Your task to perform on an android device: uninstall "Gmail" Image 0: 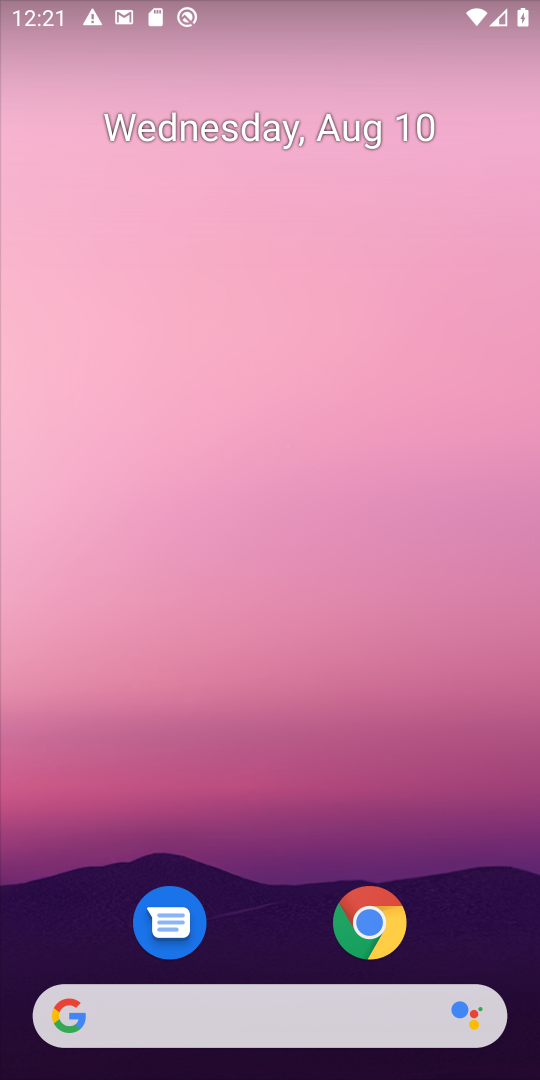
Step 0: drag from (253, 666) to (258, 224)
Your task to perform on an android device: uninstall "Gmail" Image 1: 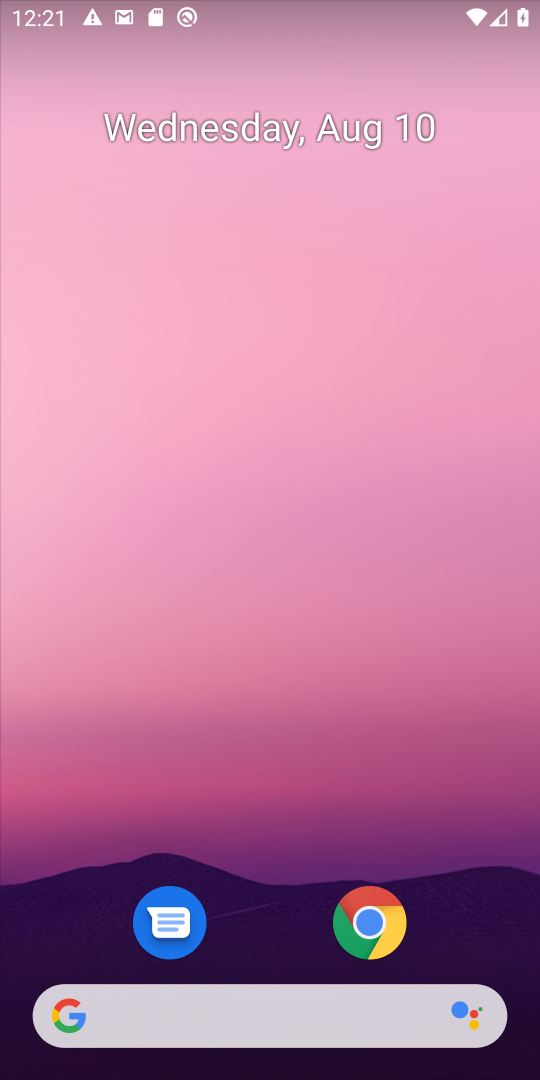
Step 1: drag from (241, 903) to (390, 39)
Your task to perform on an android device: uninstall "Gmail" Image 2: 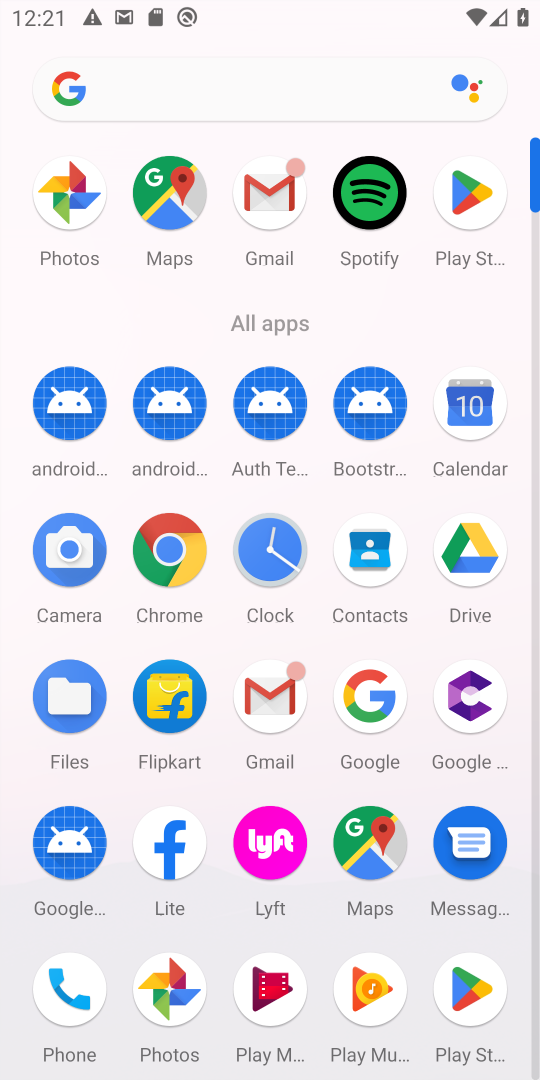
Step 2: click (479, 212)
Your task to perform on an android device: uninstall "Gmail" Image 3: 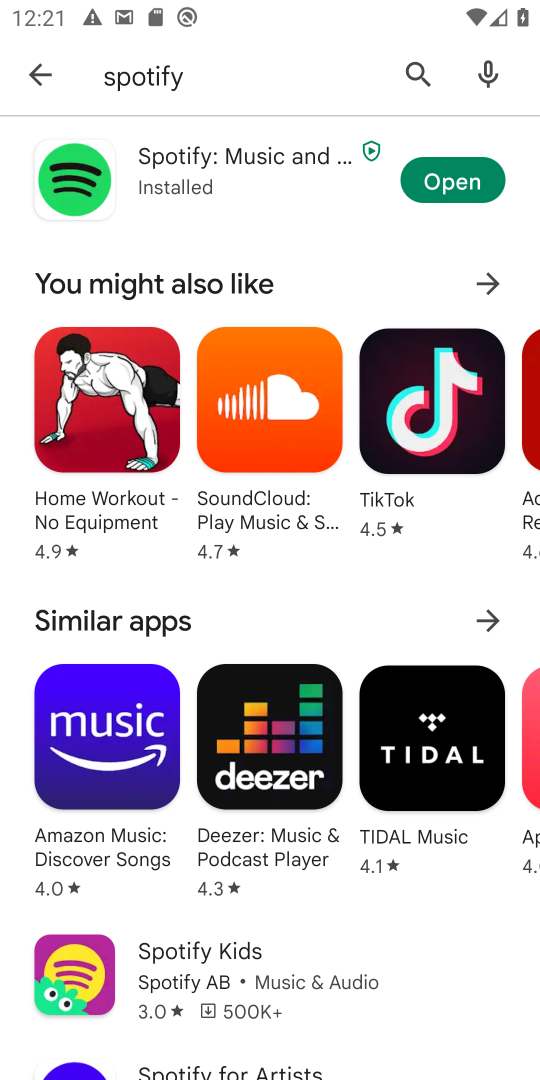
Step 3: click (43, 71)
Your task to perform on an android device: uninstall "Gmail" Image 4: 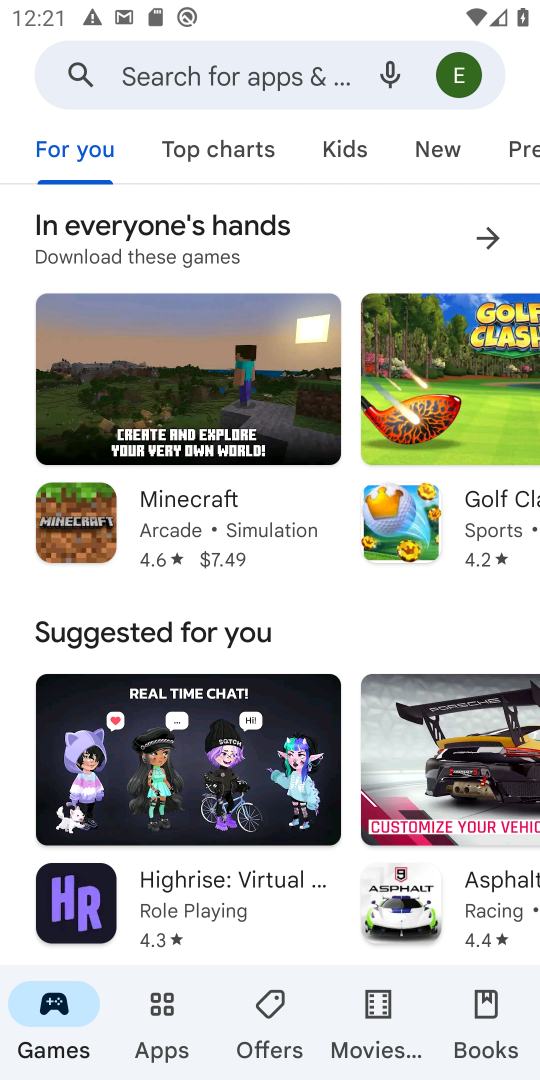
Step 4: click (192, 85)
Your task to perform on an android device: uninstall "Gmail" Image 5: 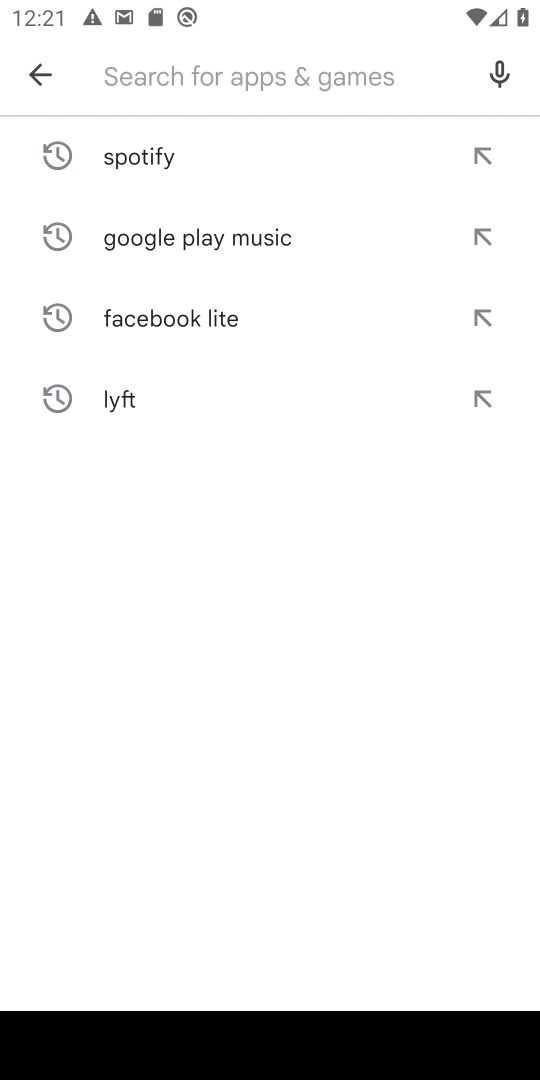
Step 5: type "Gmail"
Your task to perform on an android device: uninstall "Gmail" Image 6: 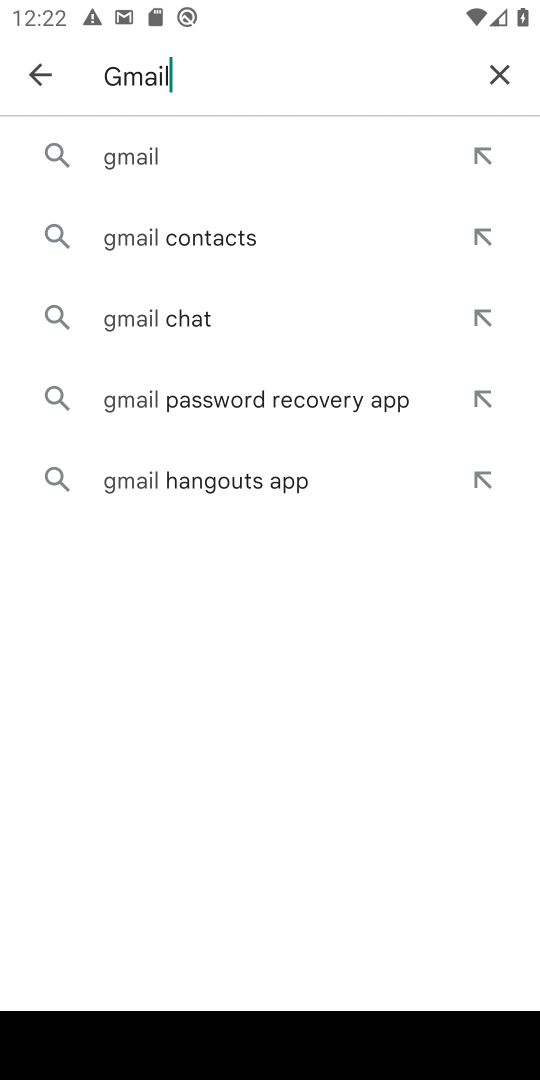
Step 6: click (132, 161)
Your task to perform on an android device: uninstall "Gmail" Image 7: 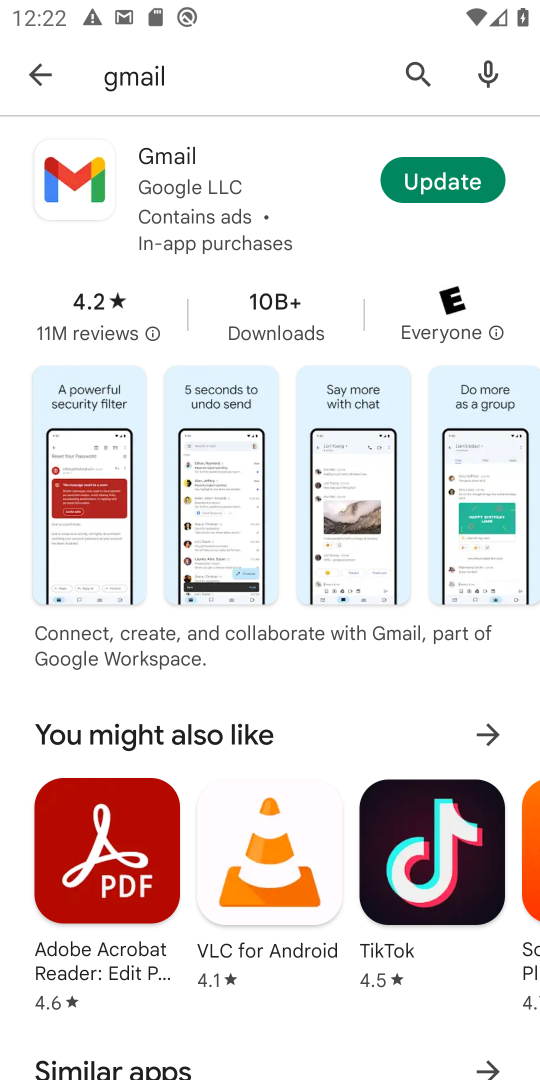
Step 7: click (419, 189)
Your task to perform on an android device: uninstall "Gmail" Image 8: 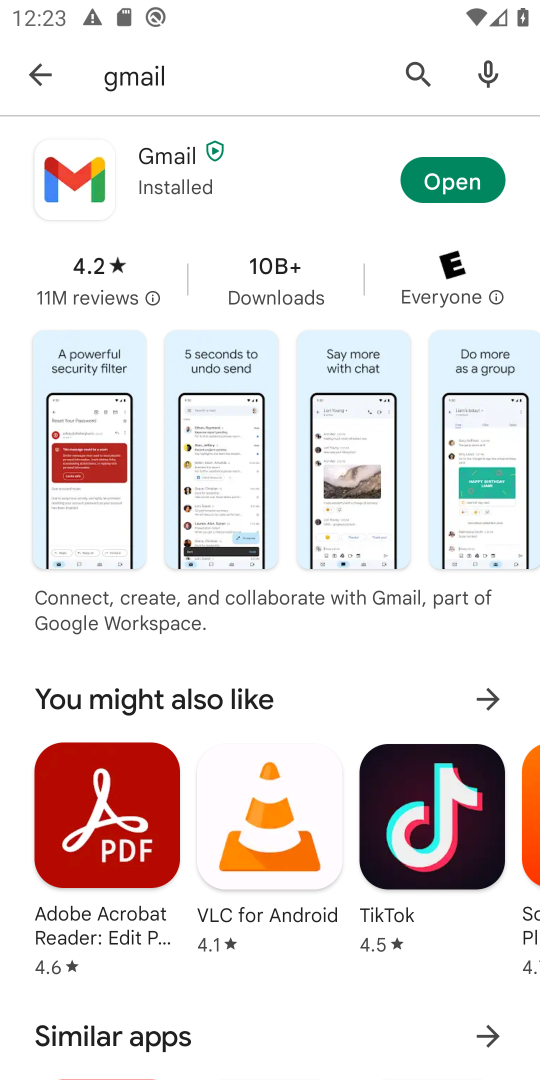
Step 8: click (449, 175)
Your task to perform on an android device: uninstall "Gmail" Image 9: 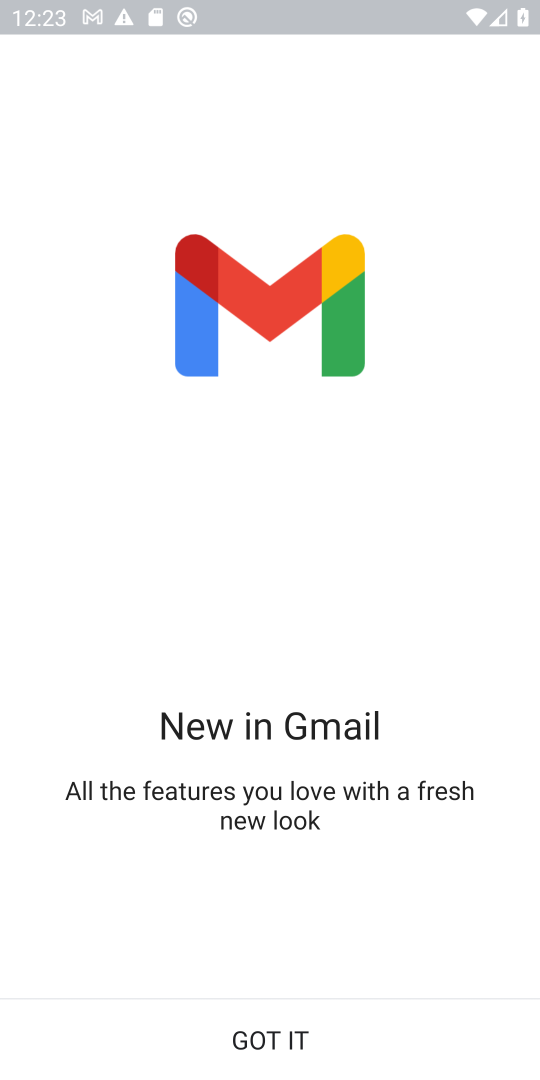
Step 9: press back button
Your task to perform on an android device: uninstall "Gmail" Image 10: 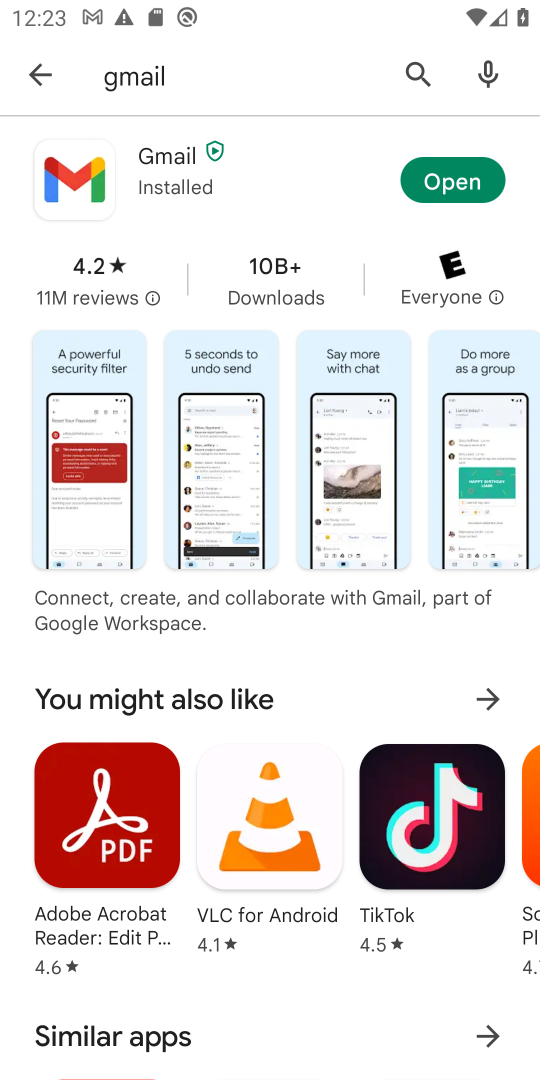
Step 10: click (180, 184)
Your task to perform on an android device: uninstall "Gmail" Image 11: 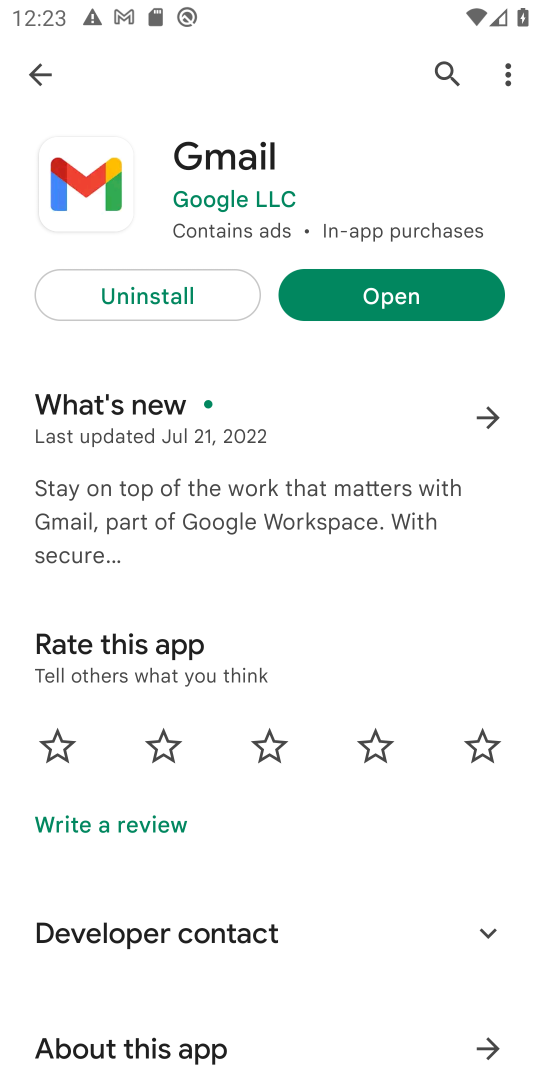
Step 11: click (123, 285)
Your task to perform on an android device: uninstall "Gmail" Image 12: 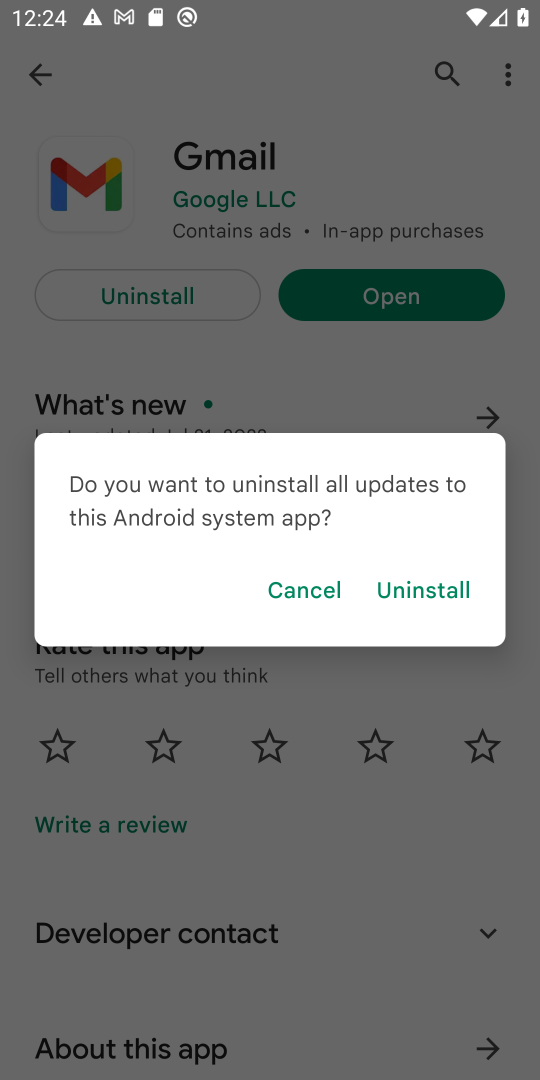
Step 12: click (409, 586)
Your task to perform on an android device: uninstall "Gmail" Image 13: 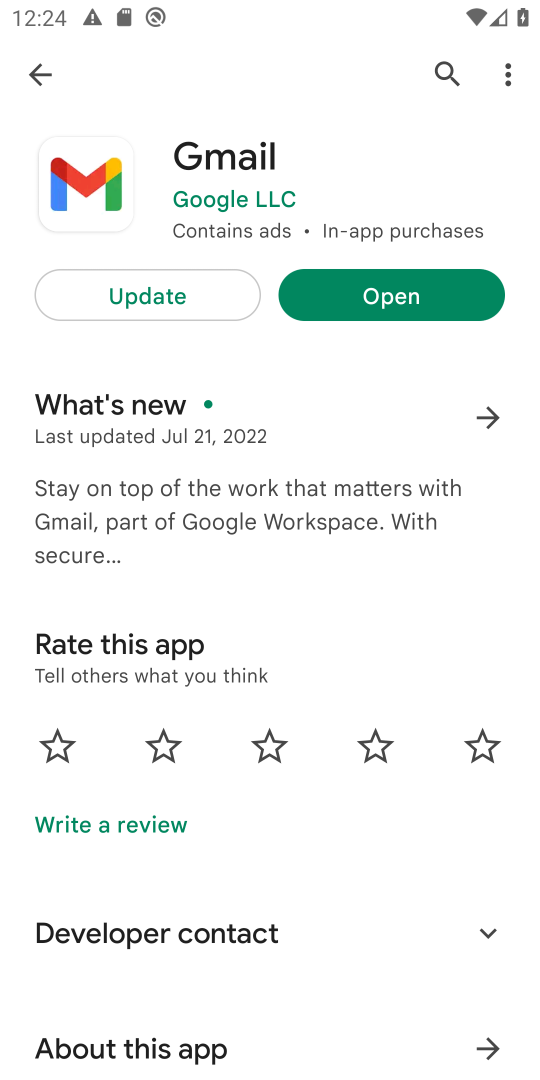
Step 13: task complete